Your task to perform on an android device: Open Yahoo.com Image 0: 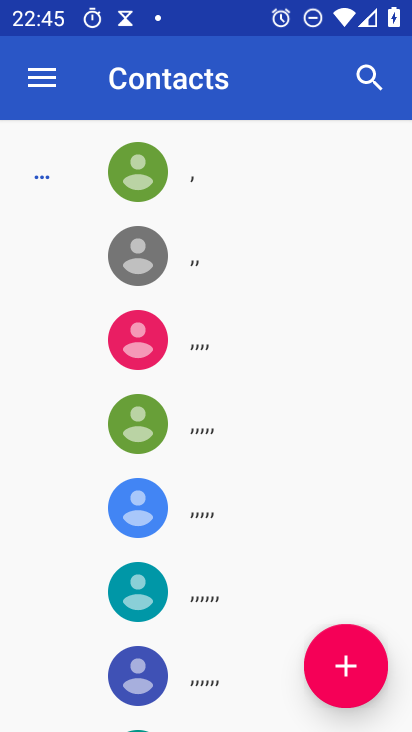
Step 0: press home button
Your task to perform on an android device: Open Yahoo.com Image 1: 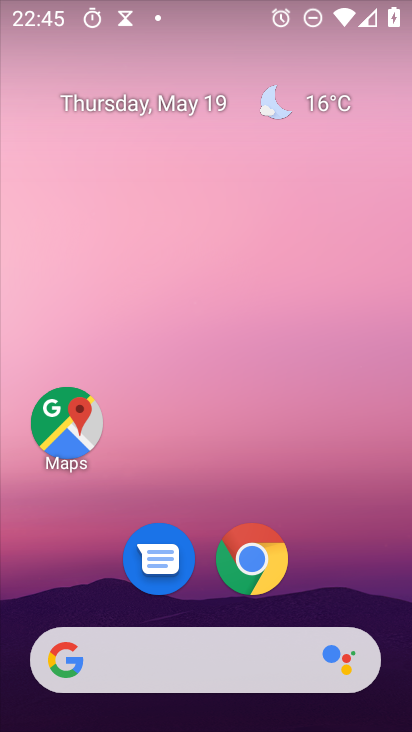
Step 1: click (249, 558)
Your task to perform on an android device: Open Yahoo.com Image 2: 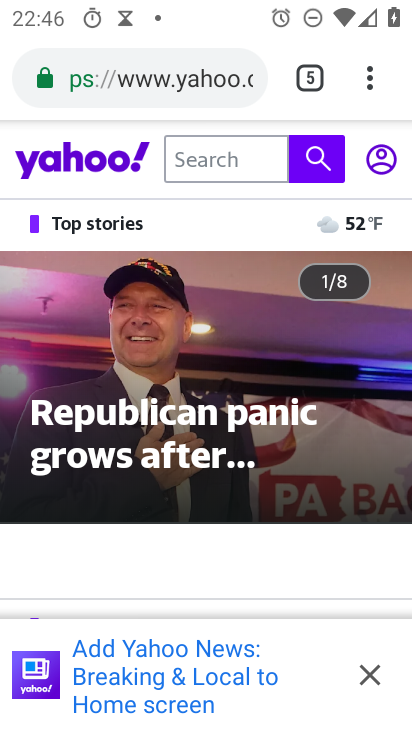
Step 2: task complete